Your task to perform on an android device: Turn on the flashlight Image 0: 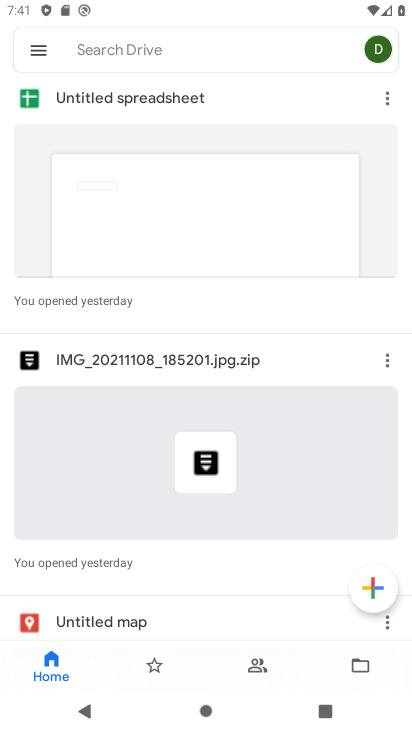
Step 0: press home button
Your task to perform on an android device: Turn on the flashlight Image 1: 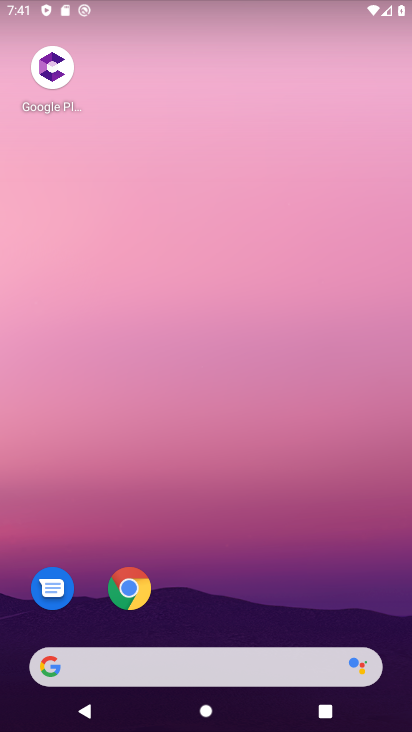
Step 1: drag from (259, 555) to (269, 138)
Your task to perform on an android device: Turn on the flashlight Image 2: 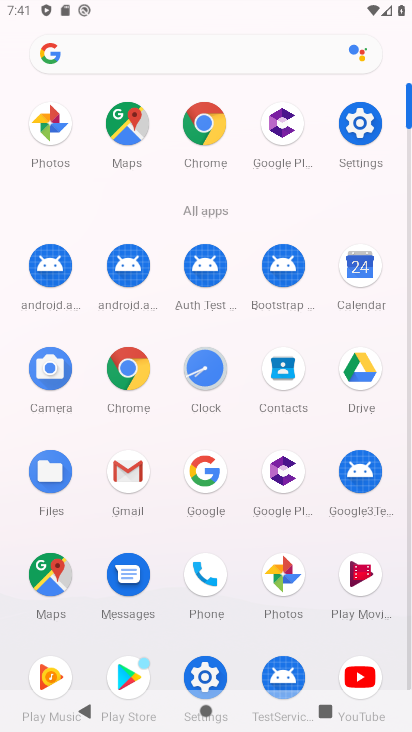
Step 2: click (368, 123)
Your task to perform on an android device: Turn on the flashlight Image 3: 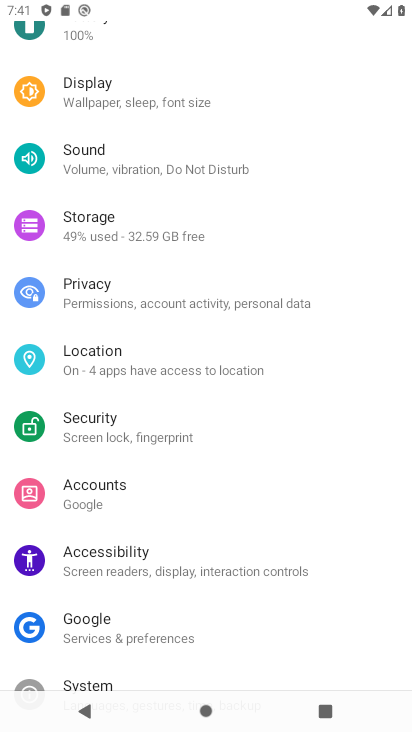
Step 3: drag from (263, 77) to (201, 625)
Your task to perform on an android device: Turn on the flashlight Image 4: 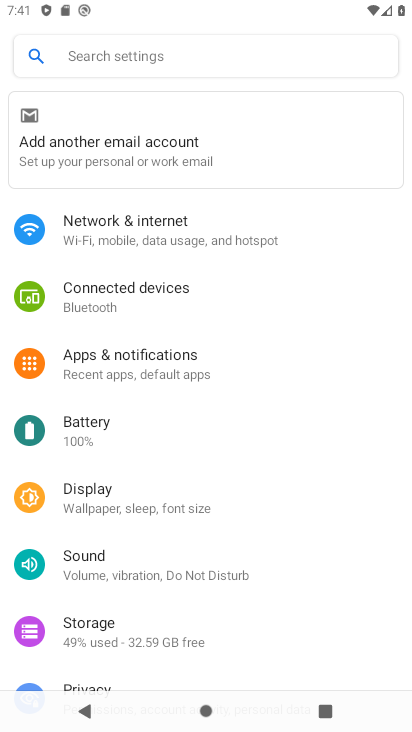
Step 4: click (224, 59)
Your task to perform on an android device: Turn on the flashlight Image 5: 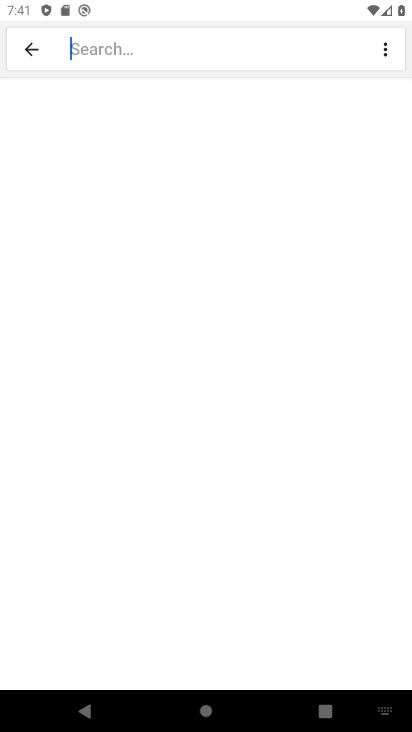
Step 5: type "flash"
Your task to perform on an android device: Turn on the flashlight Image 6: 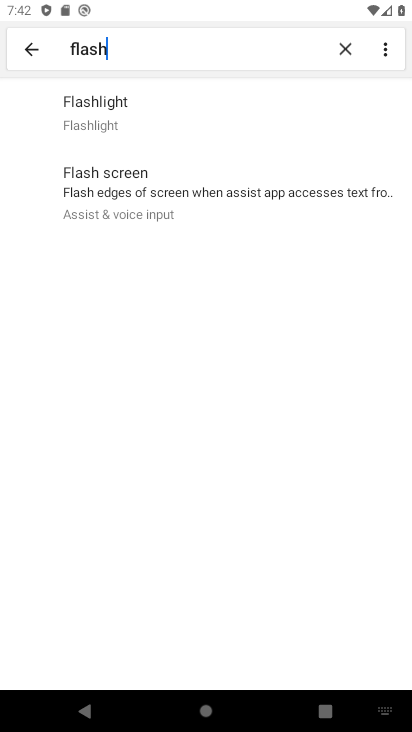
Step 6: task complete